Your task to perform on an android device: turn on bluetooth scan Image 0: 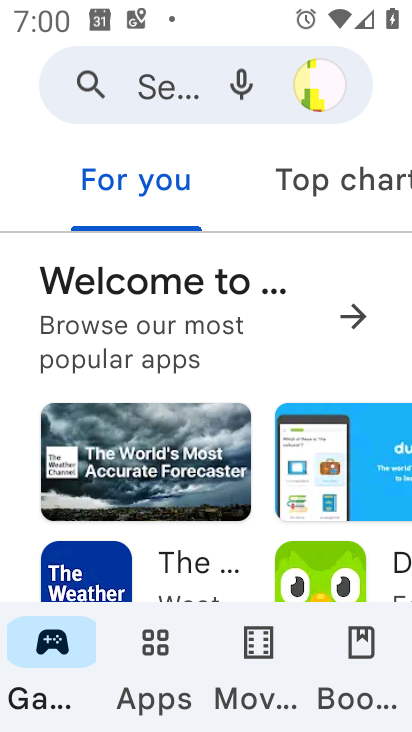
Step 0: press home button
Your task to perform on an android device: turn on bluetooth scan Image 1: 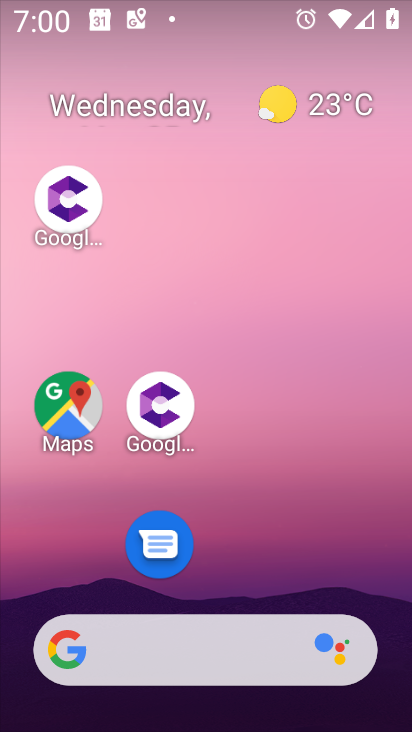
Step 1: drag from (274, 511) to (193, 16)
Your task to perform on an android device: turn on bluetooth scan Image 2: 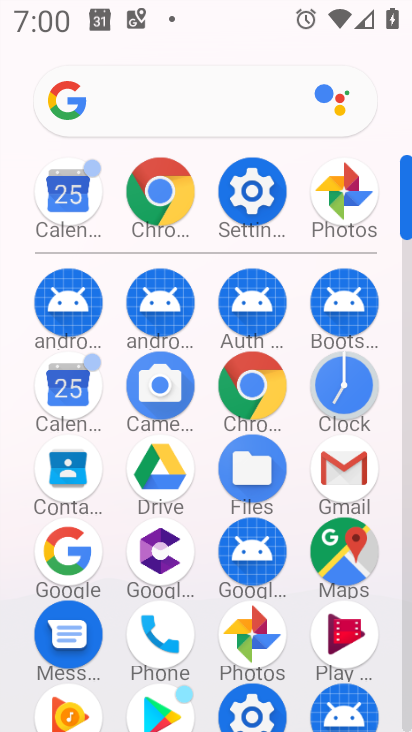
Step 2: click (252, 195)
Your task to perform on an android device: turn on bluetooth scan Image 3: 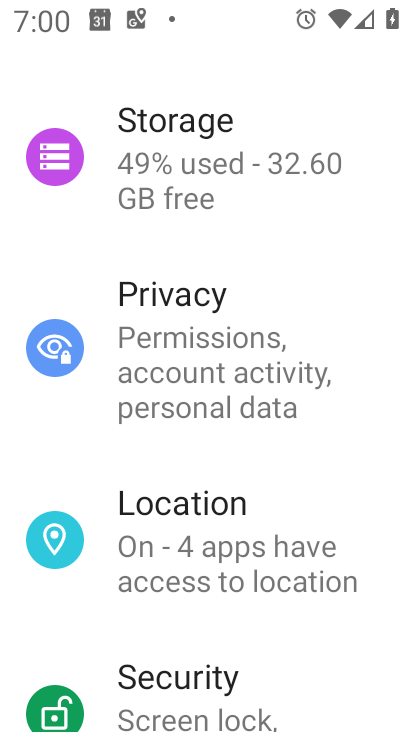
Step 3: click (190, 509)
Your task to perform on an android device: turn on bluetooth scan Image 4: 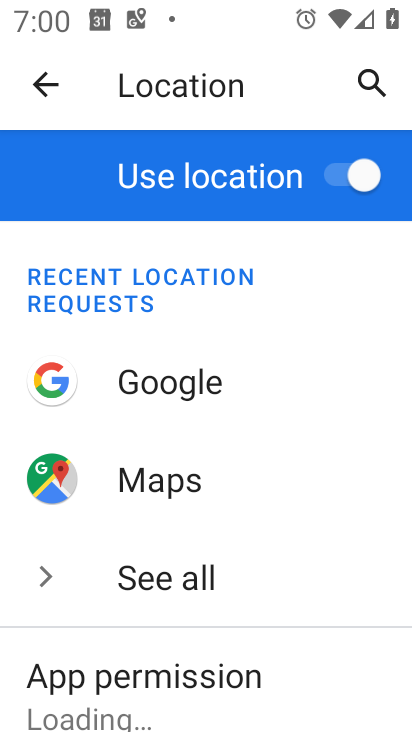
Step 4: drag from (243, 495) to (176, 168)
Your task to perform on an android device: turn on bluetooth scan Image 5: 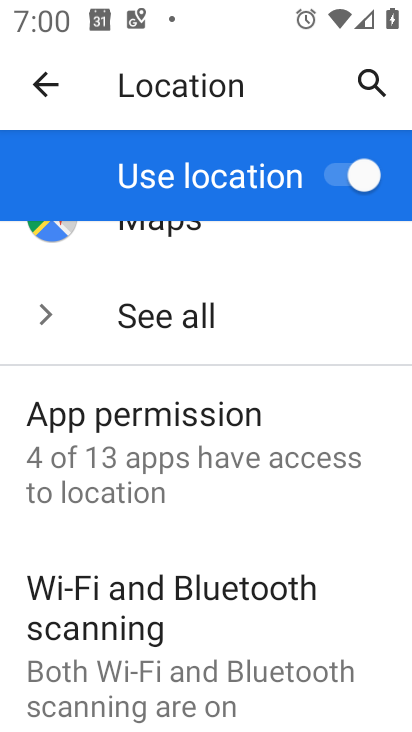
Step 5: click (112, 604)
Your task to perform on an android device: turn on bluetooth scan Image 6: 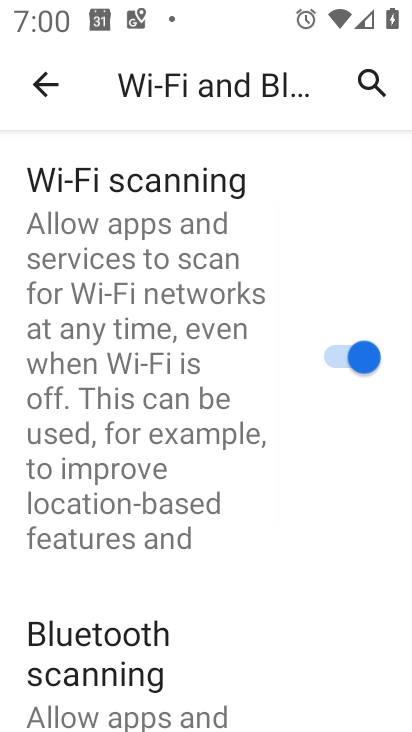
Step 6: task complete